Your task to perform on an android device: Go to Google maps Image 0: 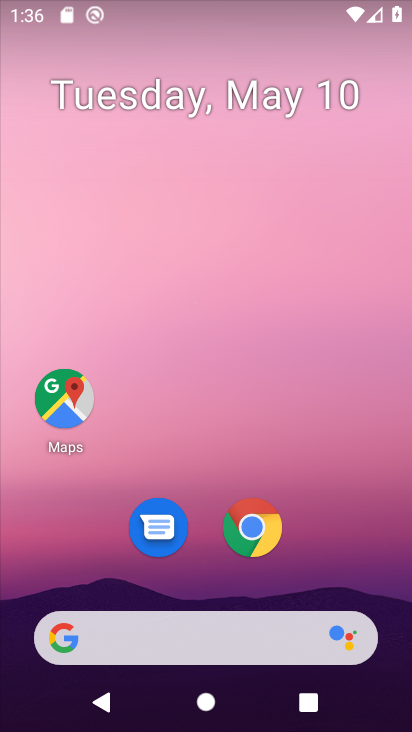
Step 0: click (68, 421)
Your task to perform on an android device: Go to Google maps Image 1: 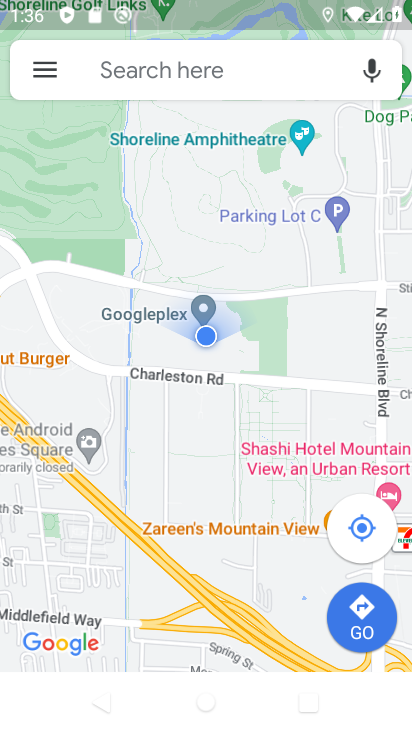
Step 1: task complete